Your task to perform on an android device: find snoozed emails in the gmail app Image 0: 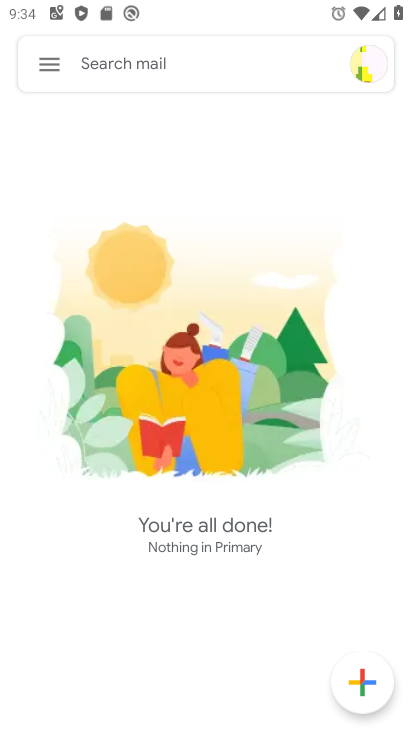
Step 0: press home button
Your task to perform on an android device: find snoozed emails in the gmail app Image 1: 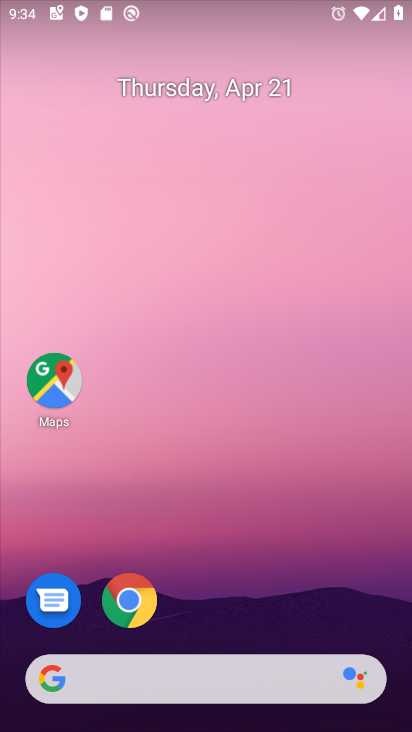
Step 1: drag from (245, 582) to (257, 27)
Your task to perform on an android device: find snoozed emails in the gmail app Image 2: 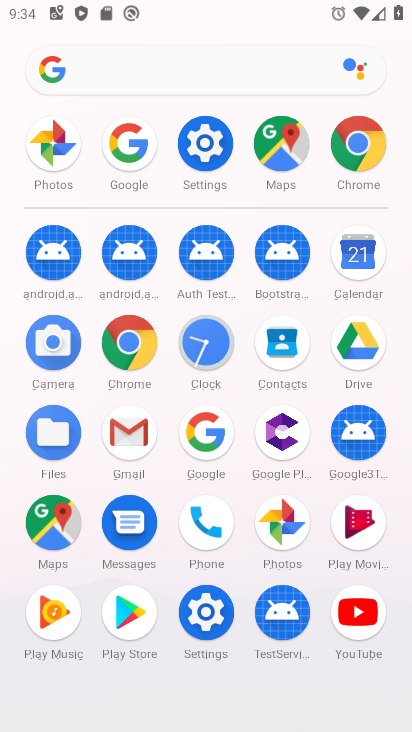
Step 2: click (128, 439)
Your task to perform on an android device: find snoozed emails in the gmail app Image 3: 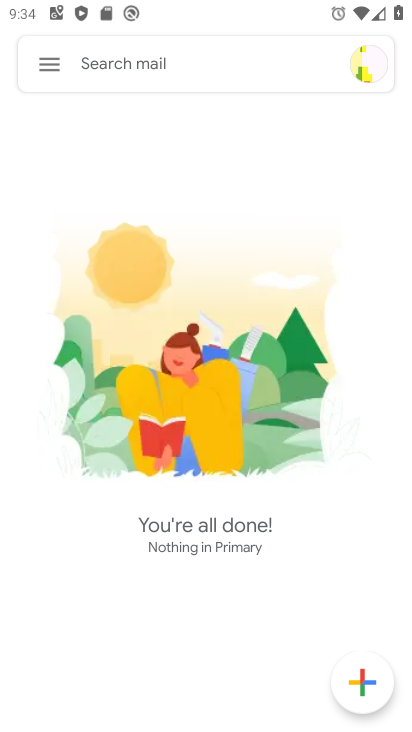
Step 3: click (52, 66)
Your task to perform on an android device: find snoozed emails in the gmail app Image 4: 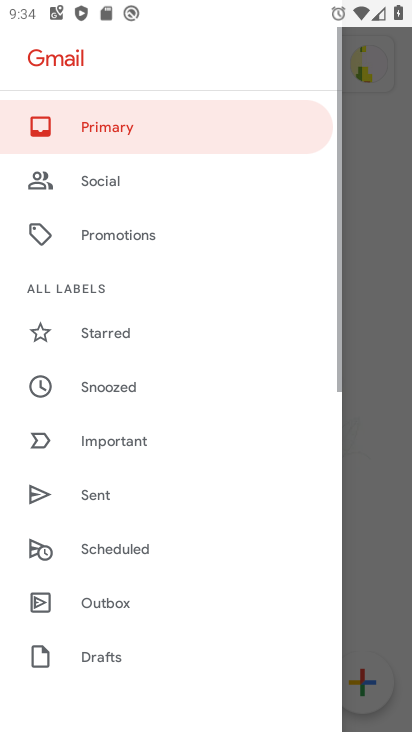
Step 4: drag from (156, 568) to (230, 134)
Your task to perform on an android device: find snoozed emails in the gmail app Image 5: 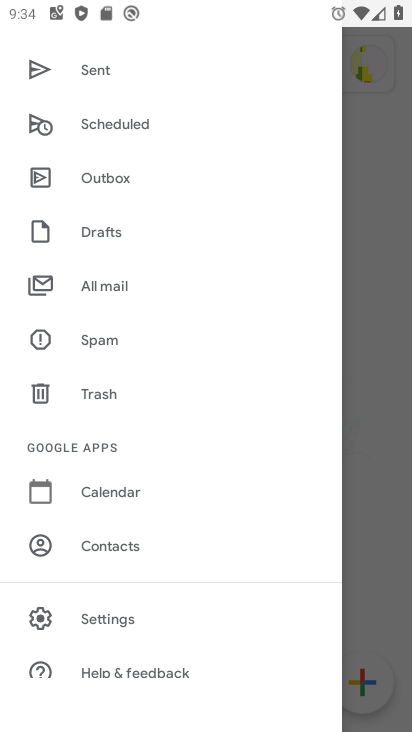
Step 5: click (108, 288)
Your task to perform on an android device: find snoozed emails in the gmail app Image 6: 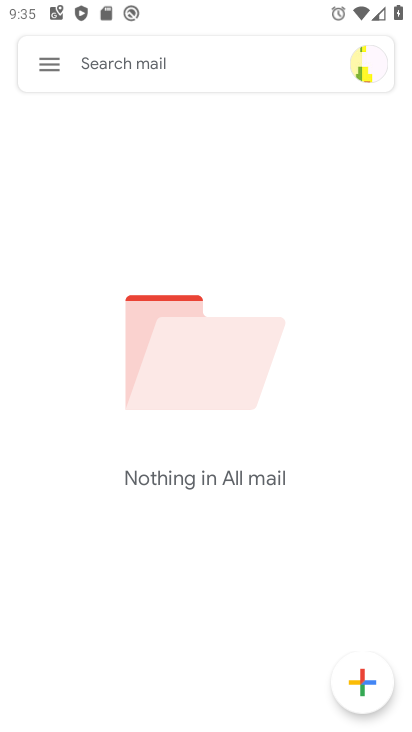
Step 6: task complete